Your task to perform on an android device: What's the weather going to be tomorrow? Image 0: 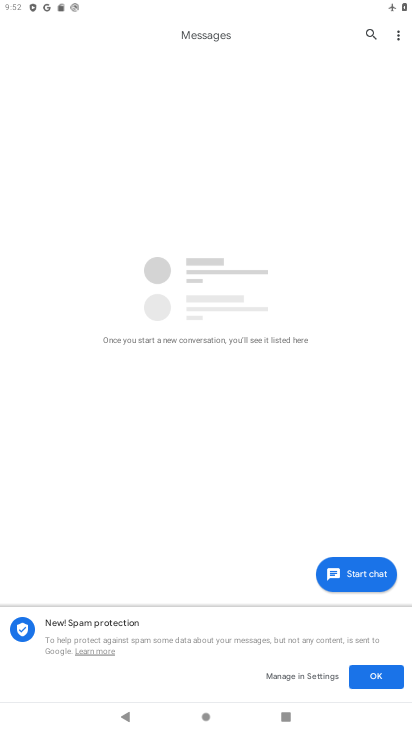
Step 0: press home button
Your task to perform on an android device: What's the weather going to be tomorrow? Image 1: 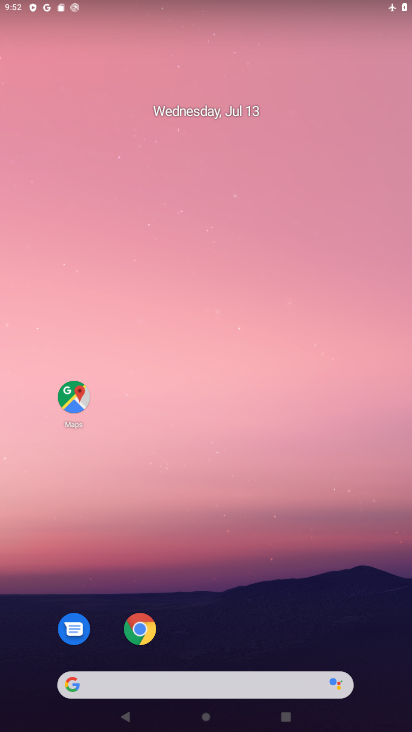
Step 1: drag from (258, 635) to (325, 19)
Your task to perform on an android device: What's the weather going to be tomorrow? Image 2: 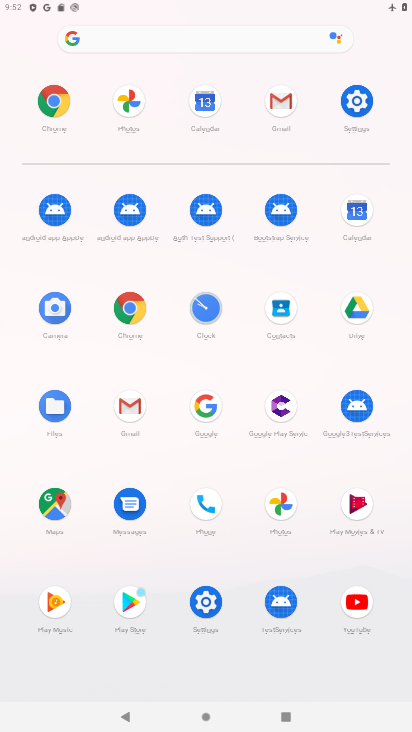
Step 2: click (245, 44)
Your task to perform on an android device: What's the weather going to be tomorrow? Image 3: 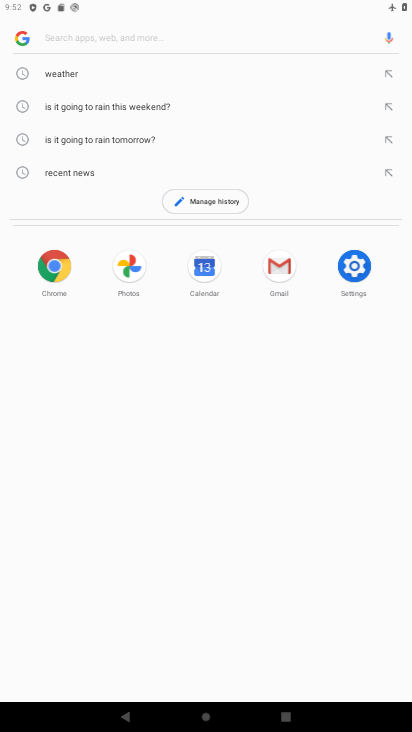
Step 3: click (140, 60)
Your task to perform on an android device: What's the weather going to be tomorrow? Image 4: 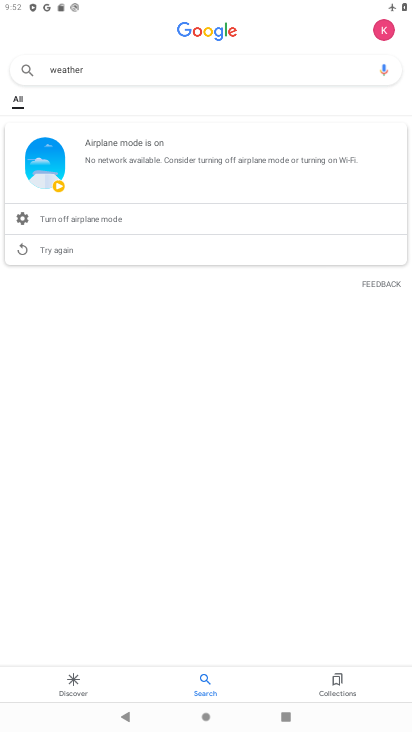
Step 4: task complete